Your task to perform on an android device: turn off wifi Image 0: 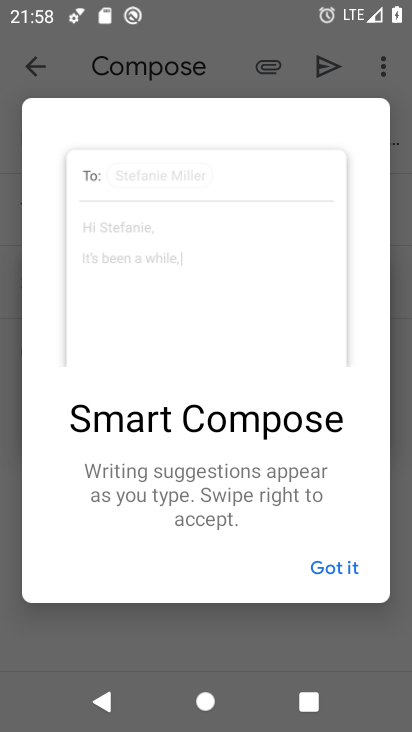
Step 0: press home button
Your task to perform on an android device: turn off wifi Image 1: 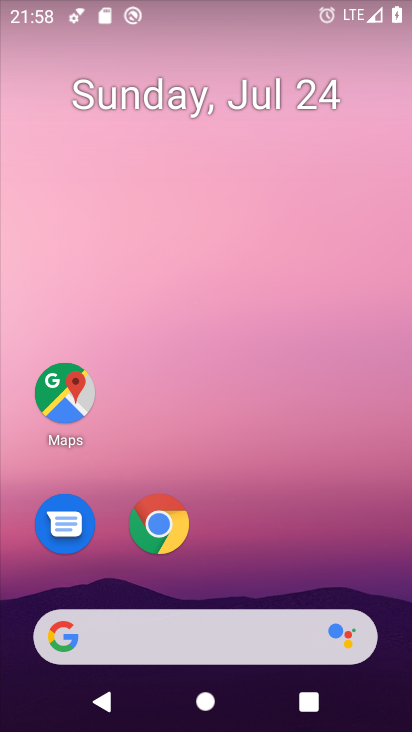
Step 1: drag from (307, 570) to (239, 77)
Your task to perform on an android device: turn off wifi Image 2: 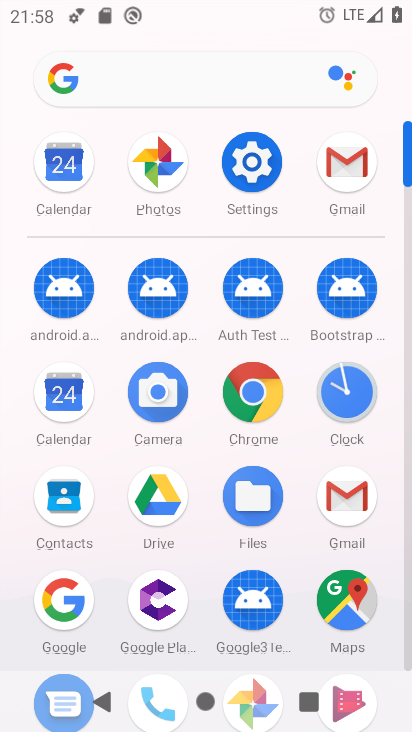
Step 2: click (251, 144)
Your task to perform on an android device: turn off wifi Image 3: 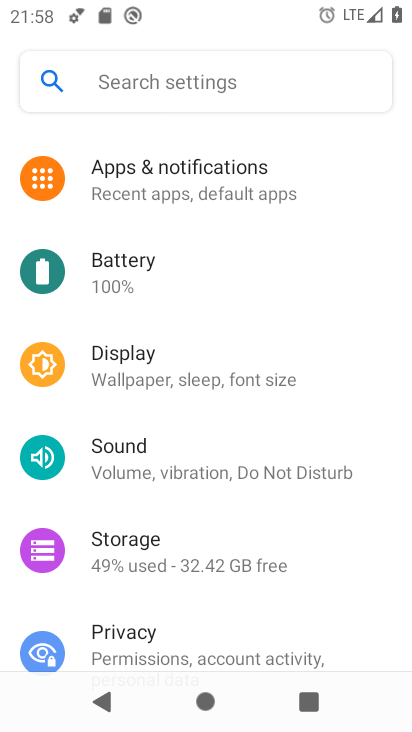
Step 3: drag from (208, 262) to (192, 613)
Your task to perform on an android device: turn off wifi Image 4: 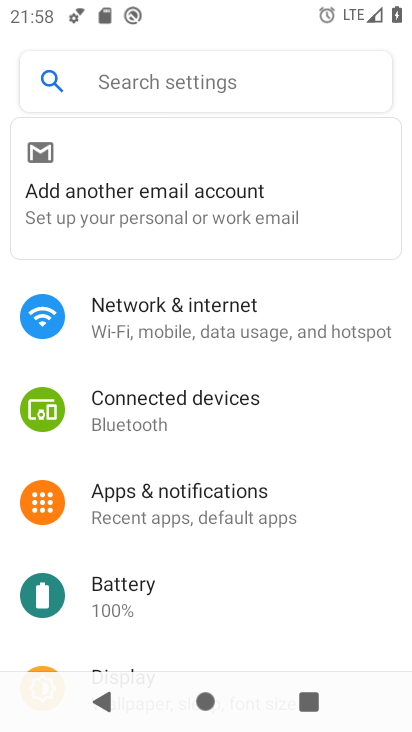
Step 4: click (228, 335)
Your task to perform on an android device: turn off wifi Image 5: 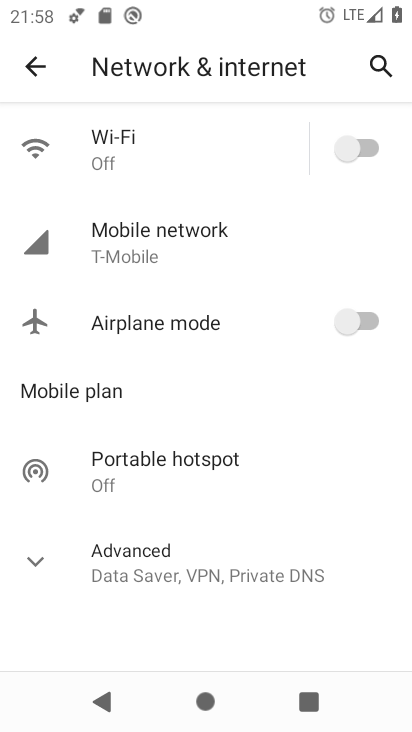
Step 5: click (356, 139)
Your task to perform on an android device: turn off wifi Image 6: 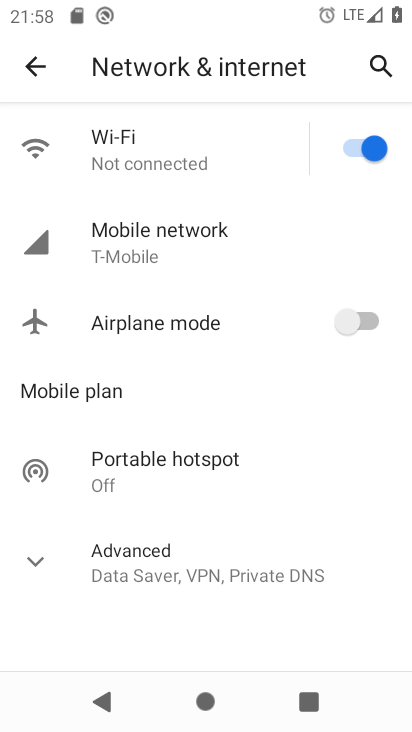
Step 6: task complete